Your task to perform on an android device: show emergency info Image 0: 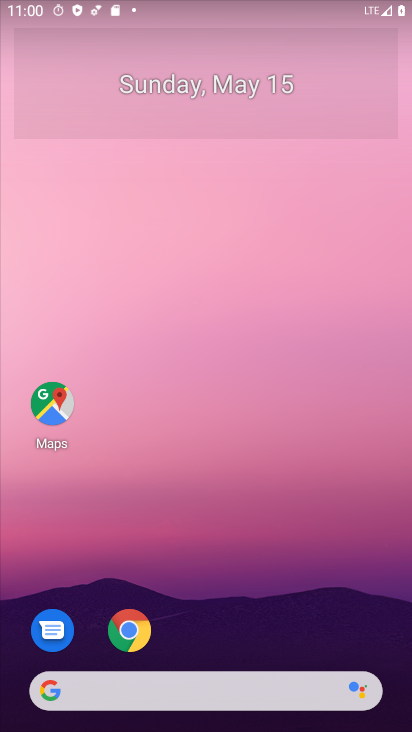
Step 0: drag from (212, 596) to (320, 34)
Your task to perform on an android device: show emergency info Image 1: 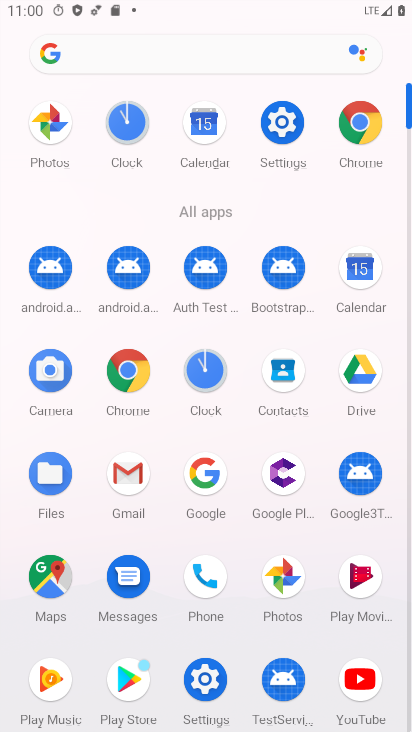
Step 1: click (284, 123)
Your task to perform on an android device: show emergency info Image 2: 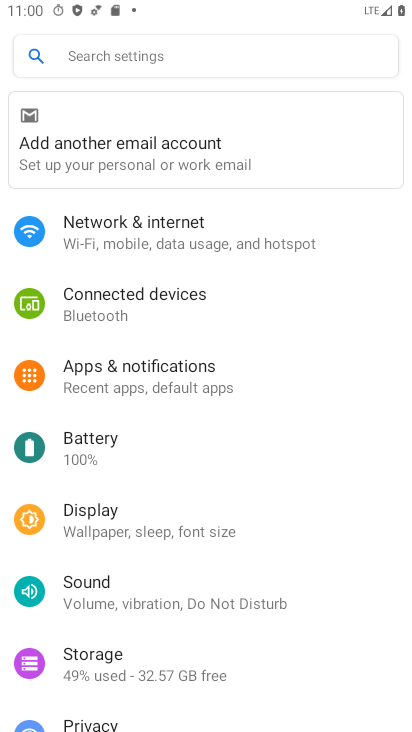
Step 2: drag from (156, 626) to (258, 39)
Your task to perform on an android device: show emergency info Image 3: 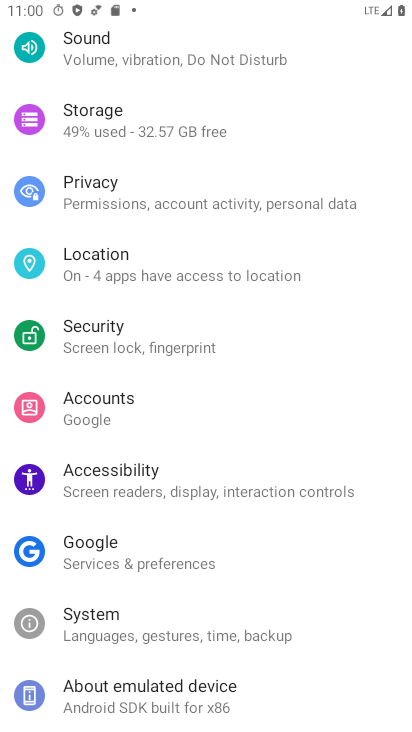
Step 3: drag from (163, 635) to (352, 20)
Your task to perform on an android device: show emergency info Image 4: 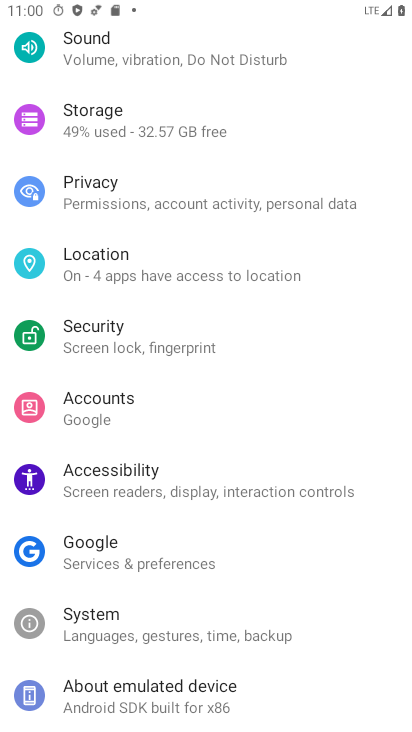
Step 4: click (167, 698)
Your task to perform on an android device: show emergency info Image 5: 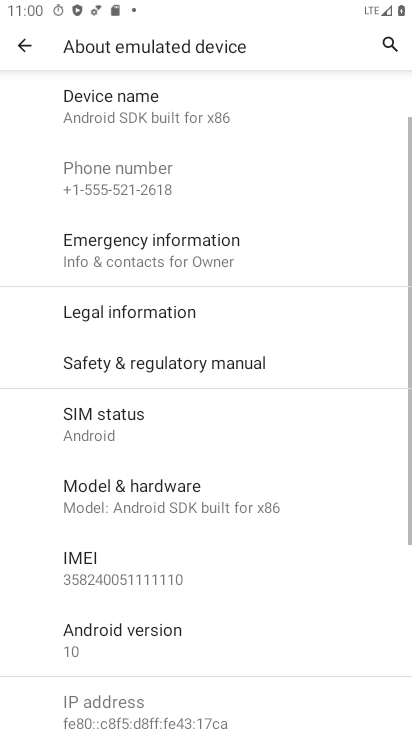
Step 5: click (169, 250)
Your task to perform on an android device: show emergency info Image 6: 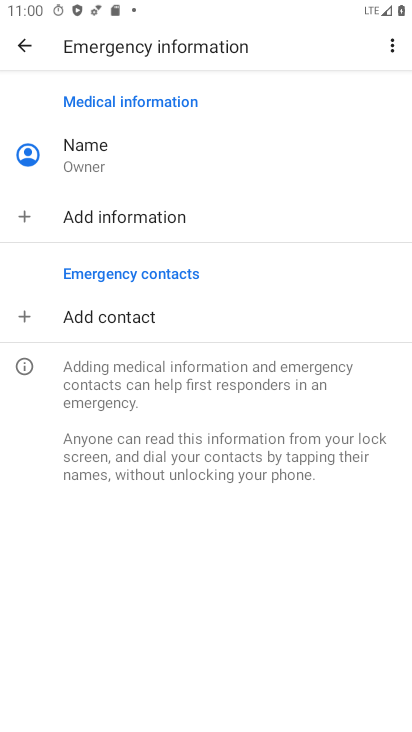
Step 6: task complete